Your task to perform on an android device: Open location settings Image 0: 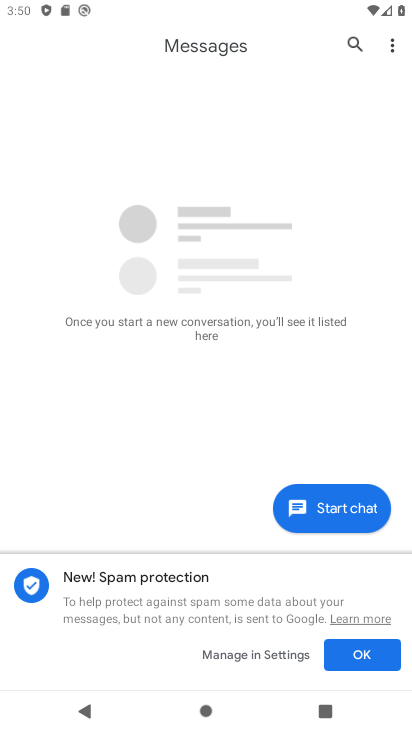
Step 0: press home button
Your task to perform on an android device: Open location settings Image 1: 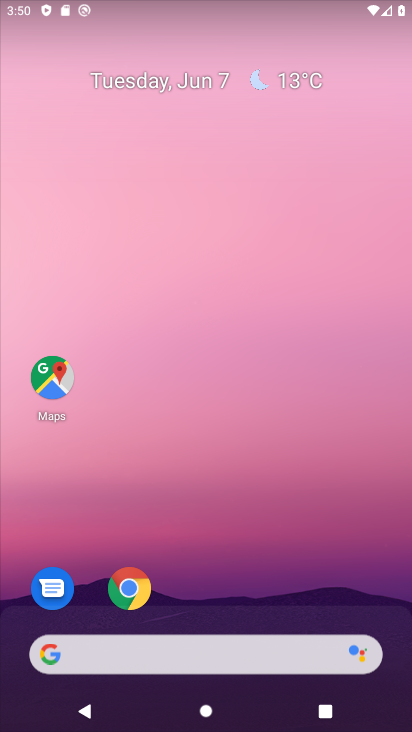
Step 1: drag from (165, 598) to (233, 182)
Your task to perform on an android device: Open location settings Image 2: 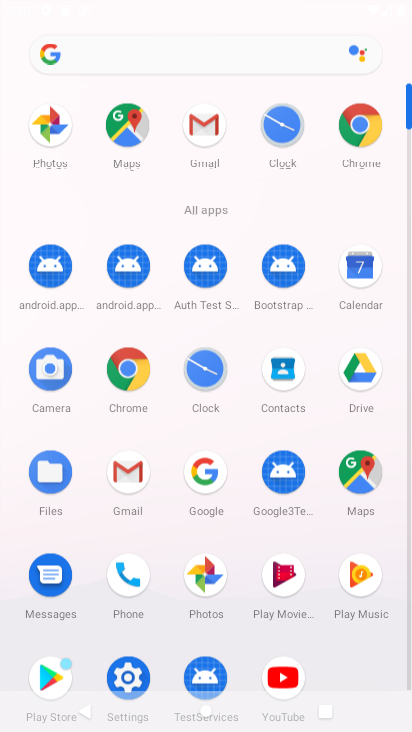
Step 2: drag from (200, 629) to (270, 187)
Your task to perform on an android device: Open location settings Image 3: 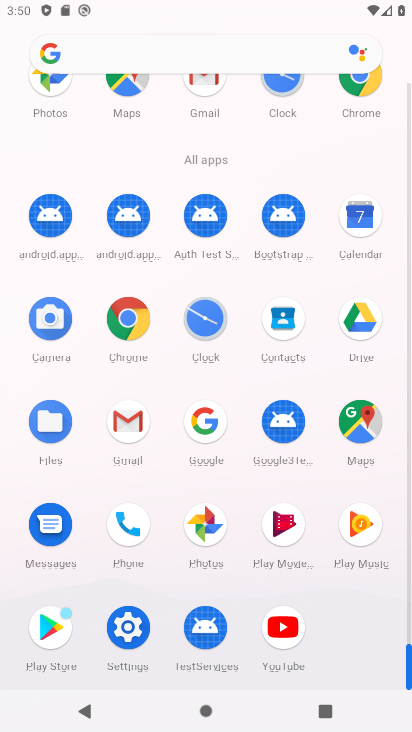
Step 3: click (119, 644)
Your task to perform on an android device: Open location settings Image 4: 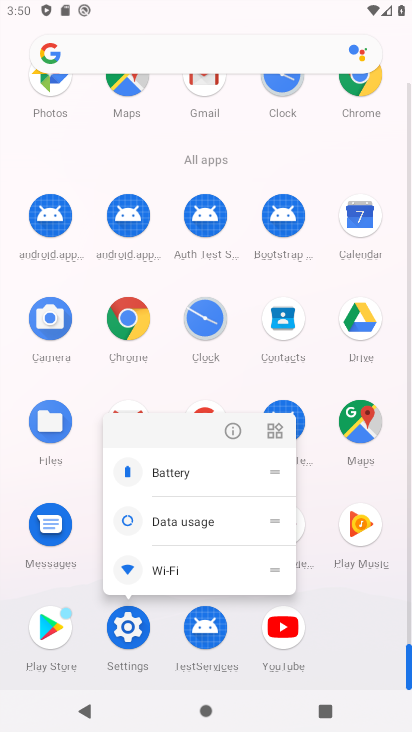
Step 4: click (121, 631)
Your task to perform on an android device: Open location settings Image 5: 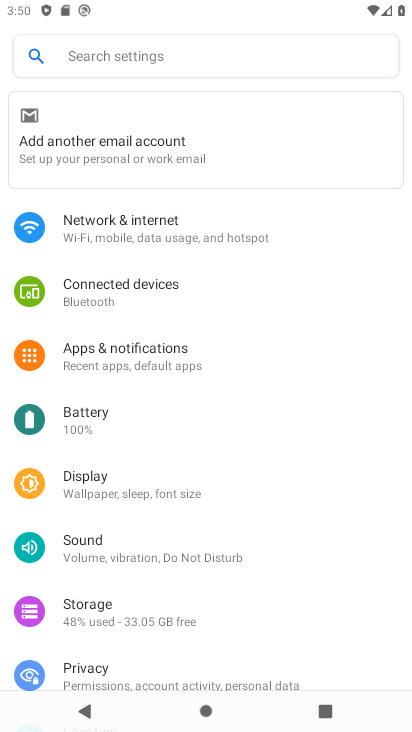
Step 5: drag from (129, 623) to (225, 297)
Your task to perform on an android device: Open location settings Image 6: 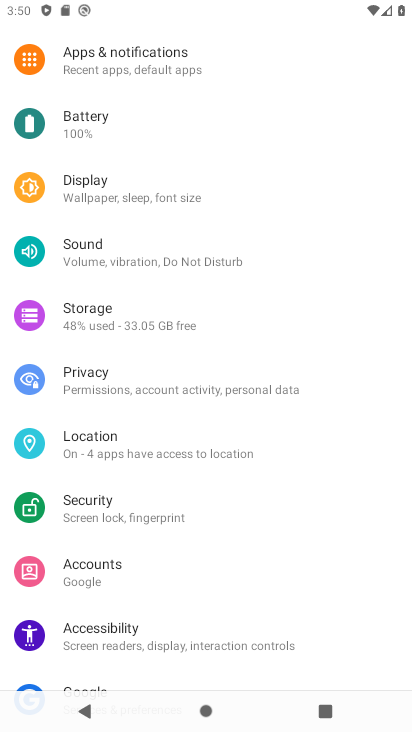
Step 6: click (164, 438)
Your task to perform on an android device: Open location settings Image 7: 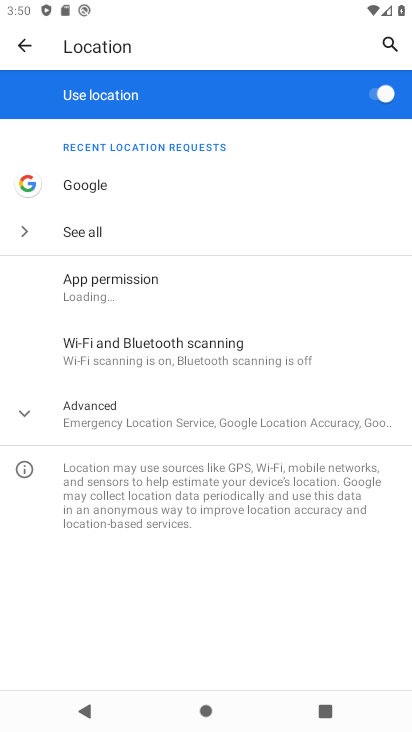
Step 7: task complete